Your task to perform on an android device: What's the weather? Image 0: 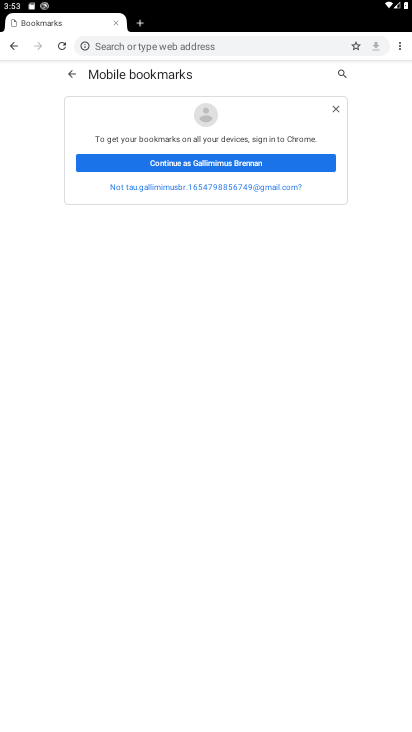
Step 0: click (228, 43)
Your task to perform on an android device: What's the weather? Image 1: 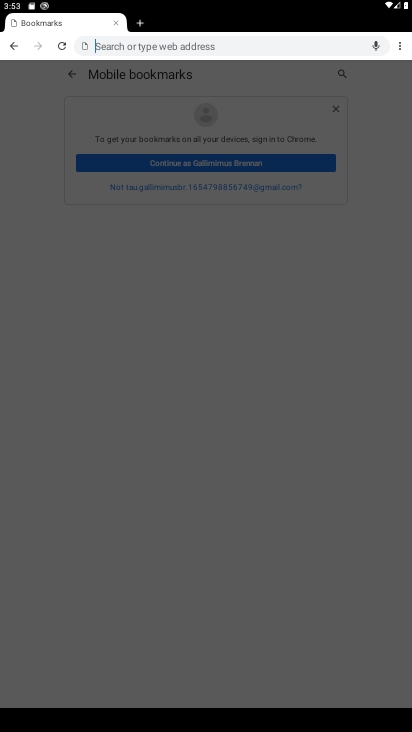
Step 1: type "whats the weather"
Your task to perform on an android device: What's the weather? Image 2: 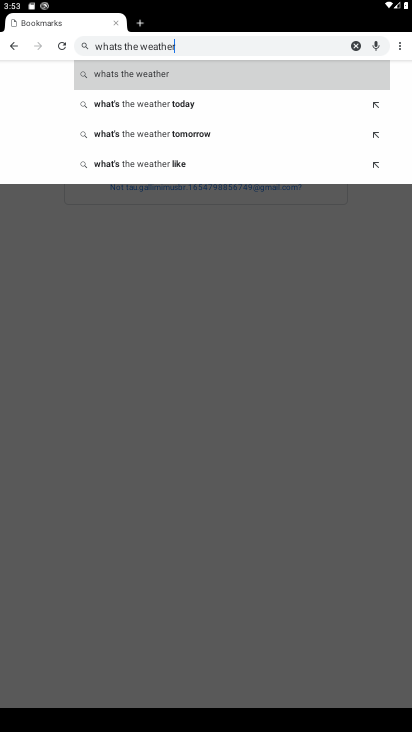
Step 2: click (266, 78)
Your task to perform on an android device: What's the weather? Image 3: 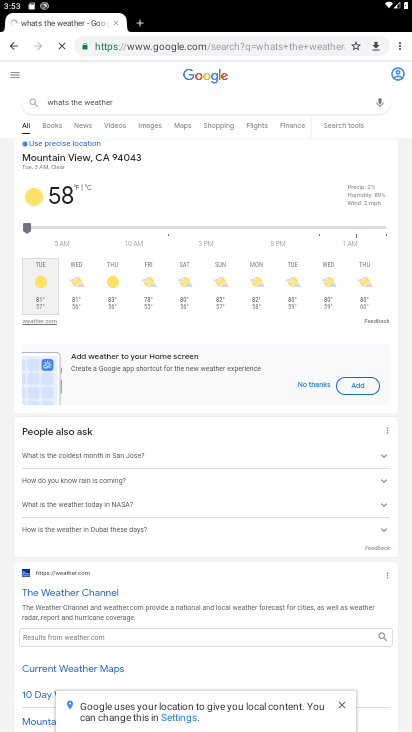
Step 3: task complete